Your task to perform on an android device: Open privacy settings Image 0: 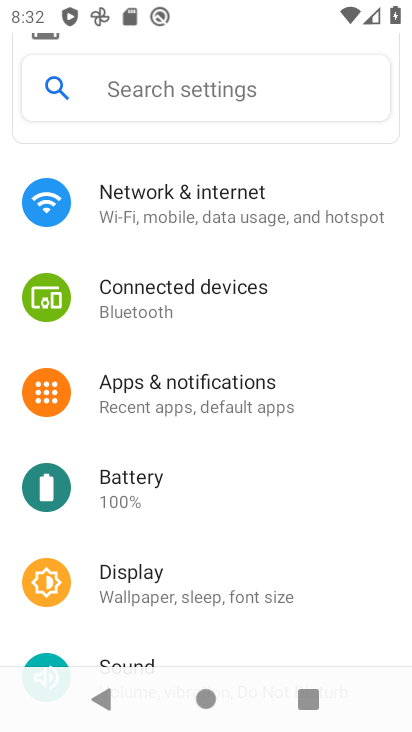
Step 0: drag from (309, 590) to (259, 200)
Your task to perform on an android device: Open privacy settings Image 1: 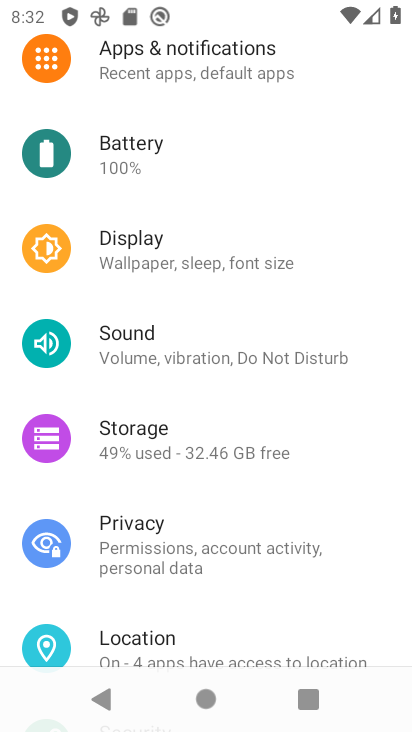
Step 1: click (156, 540)
Your task to perform on an android device: Open privacy settings Image 2: 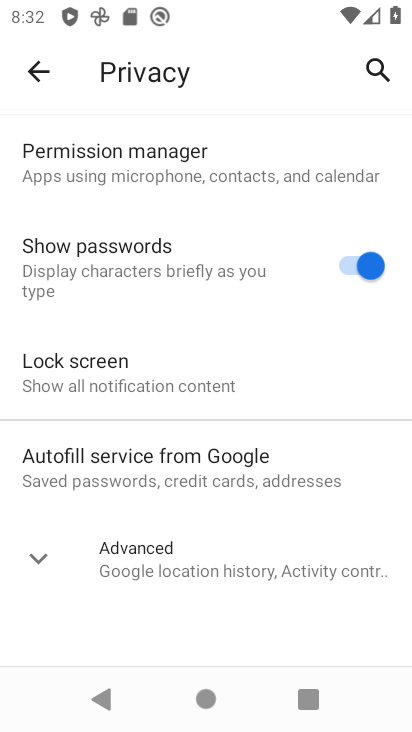
Step 2: task complete